Your task to perform on an android device: visit the assistant section in the google photos Image 0: 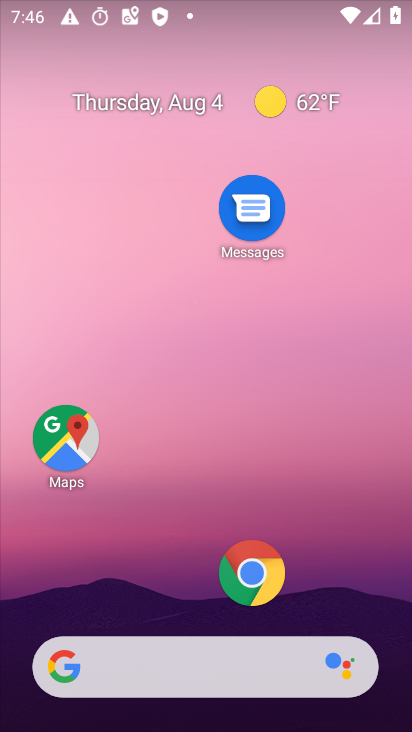
Step 0: press home button
Your task to perform on an android device: visit the assistant section in the google photos Image 1: 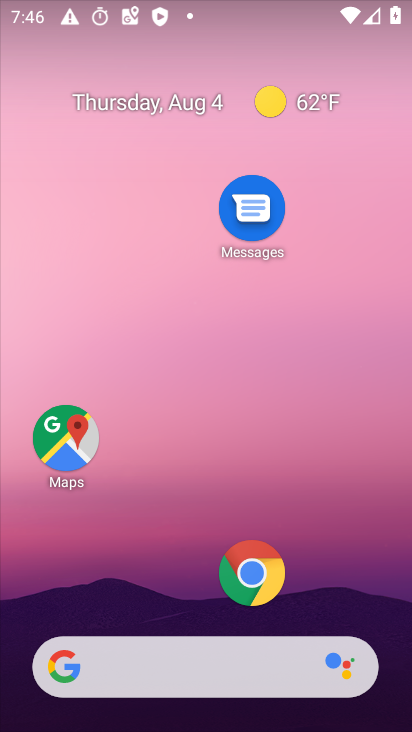
Step 1: drag from (166, 557) to (228, 0)
Your task to perform on an android device: visit the assistant section in the google photos Image 2: 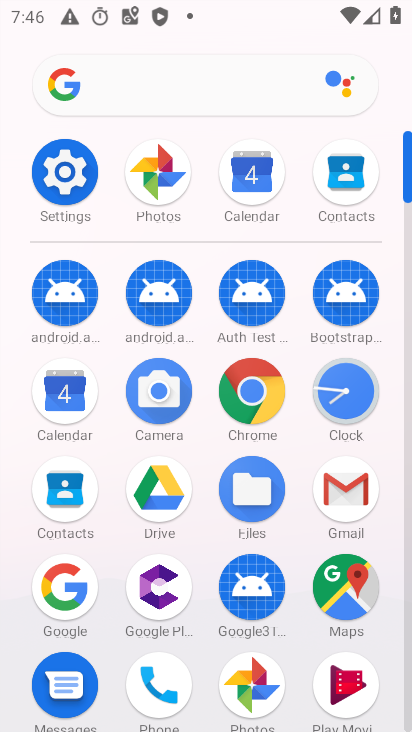
Step 2: click (158, 179)
Your task to perform on an android device: visit the assistant section in the google photos Image 3: 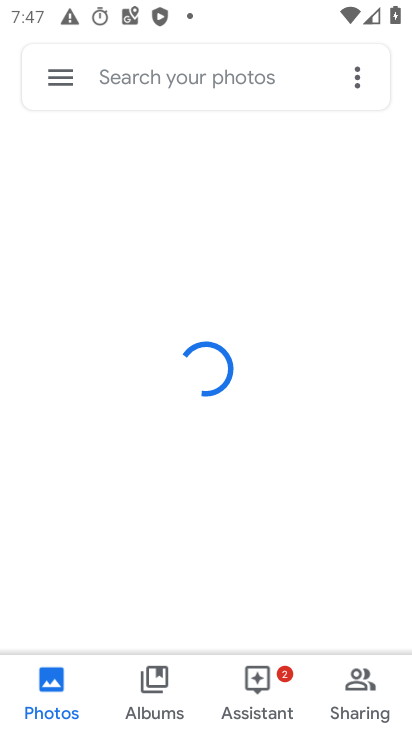
Step 3: click (262, 677)
Your task to perform on an android device: visit the assistant section in the google photos Image 4: 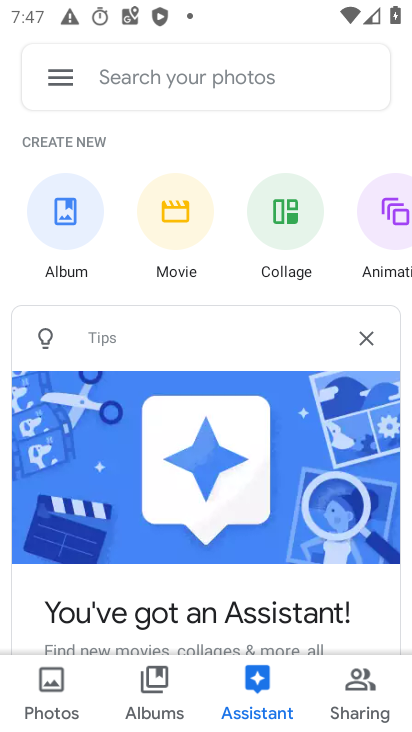
Step 4: task complete